Your task to perform on an android device: Open maps Image 0: 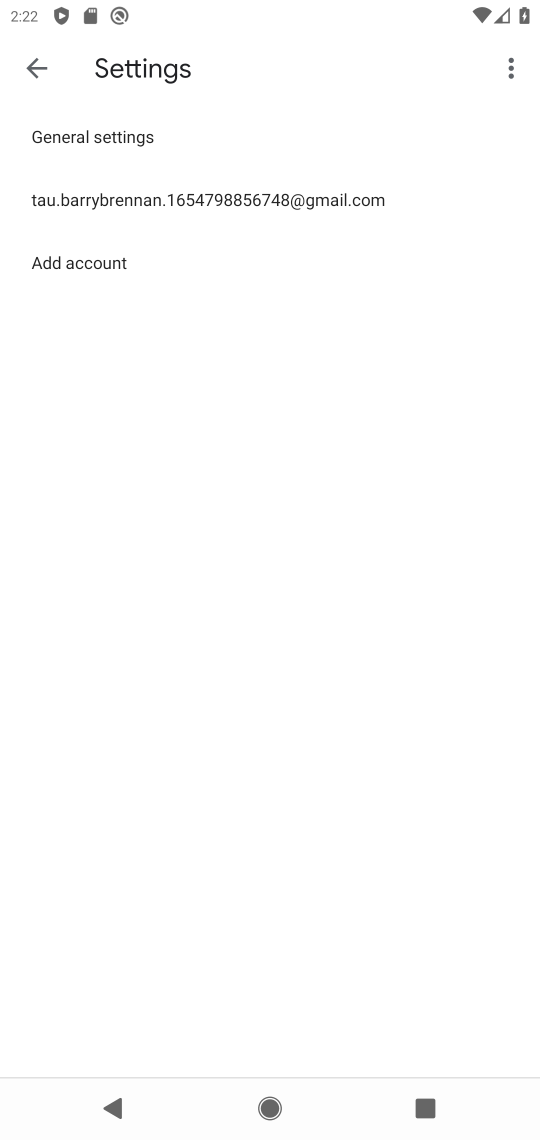
Step 0: press home button
Your task to perform on an android device: Open maps Image 1: 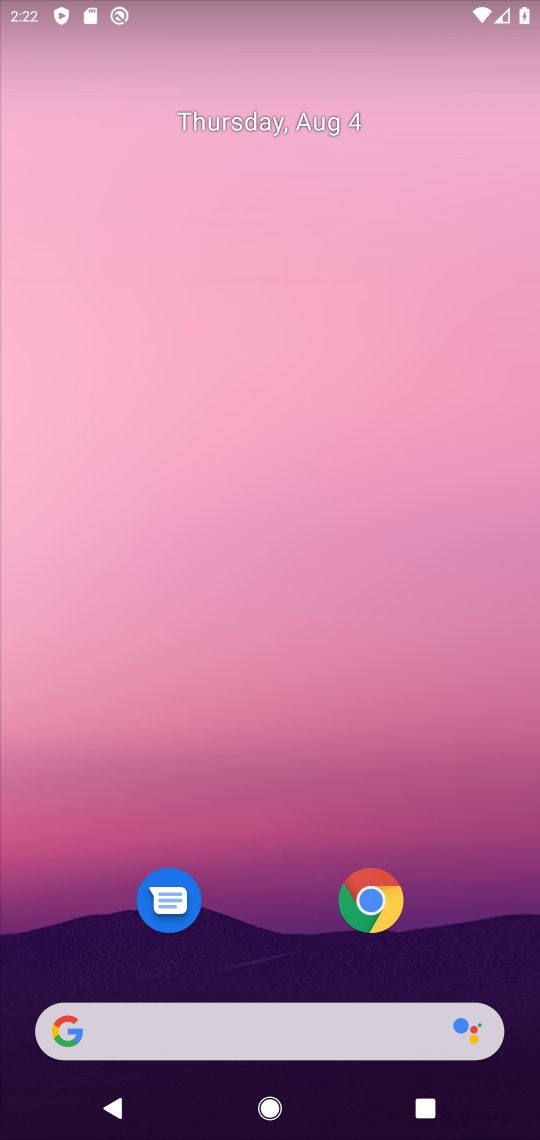
Step 1: drag from (472, 939) to (380, 286)
Your task to perform on an android device: Open maps Image 2: 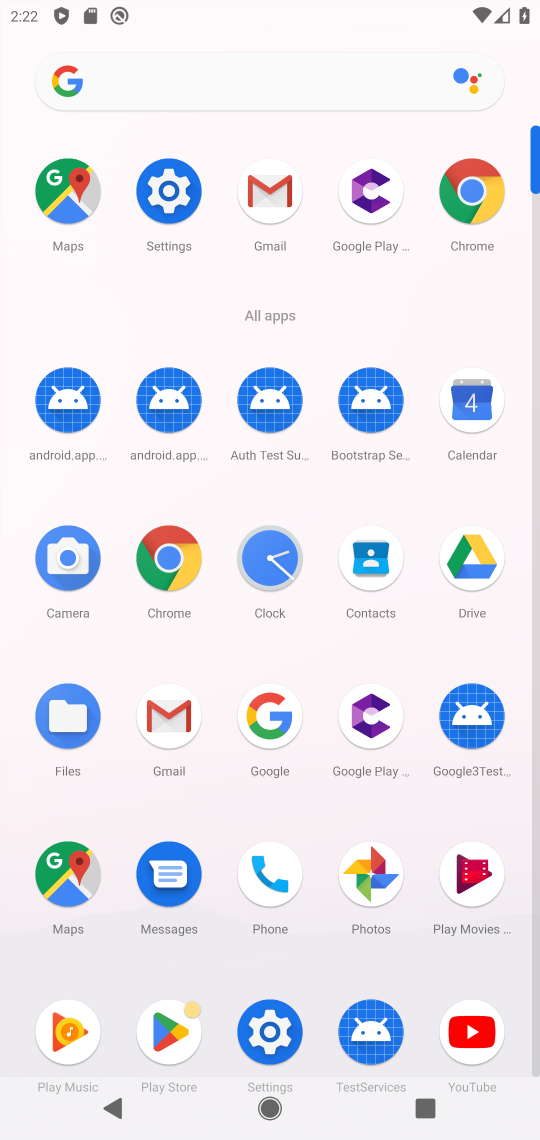
Step 2: click (55, 894)
Your task to perform on an android device: Open maps Image 3: 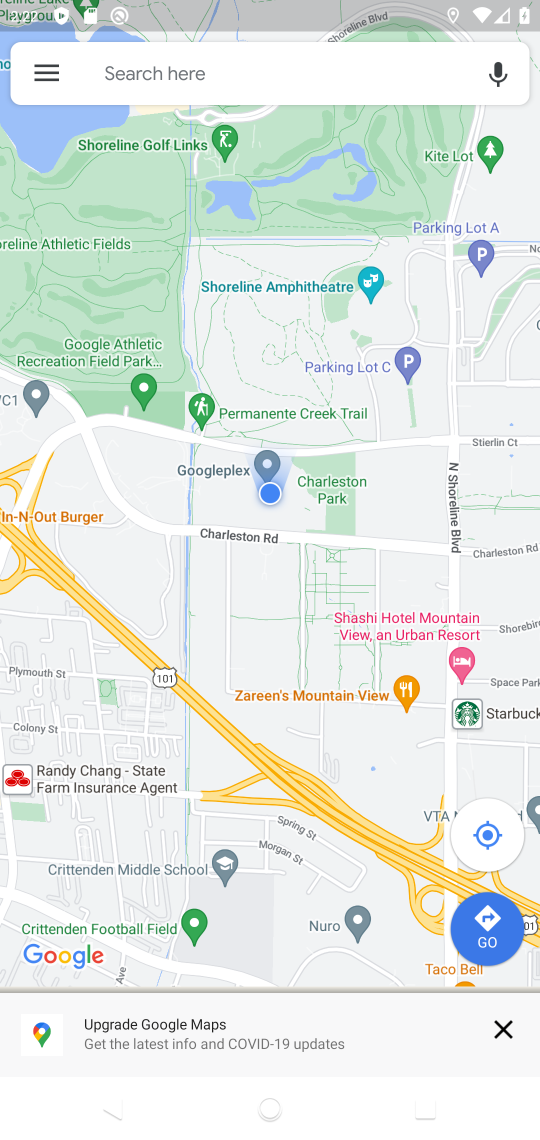
Step 3: task complete